Your task to perform on an android device: clear history in the chrome app Image 0: 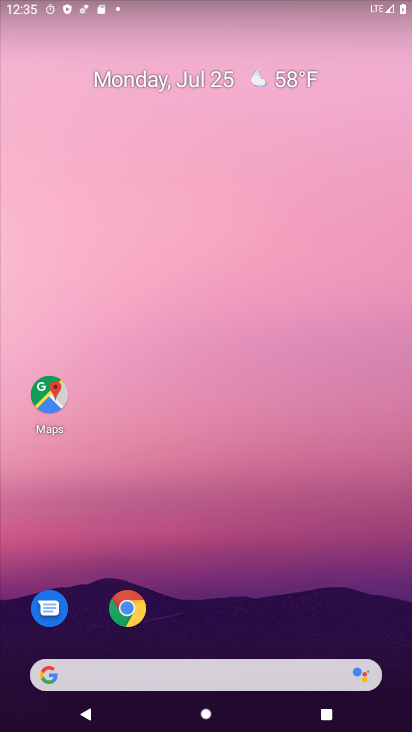
Step 0: drag from (249, 586) to (255, 46)
Your task to perform on an android device: clear history in the chrome app Image 1: 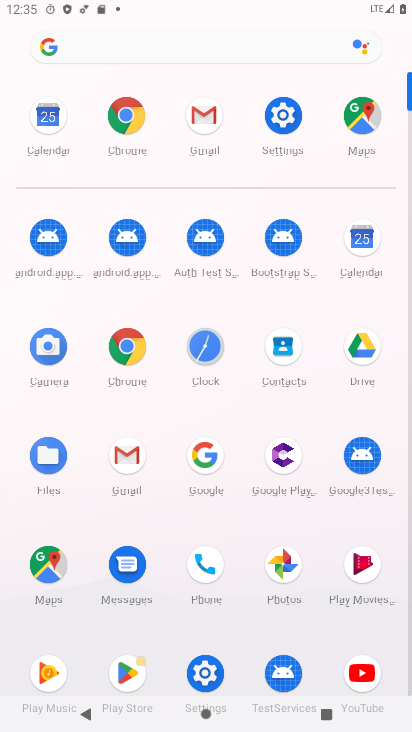
Step 1: click (132, 345)
Your task to perform on an android device: clear history in the chrome app Image 2: 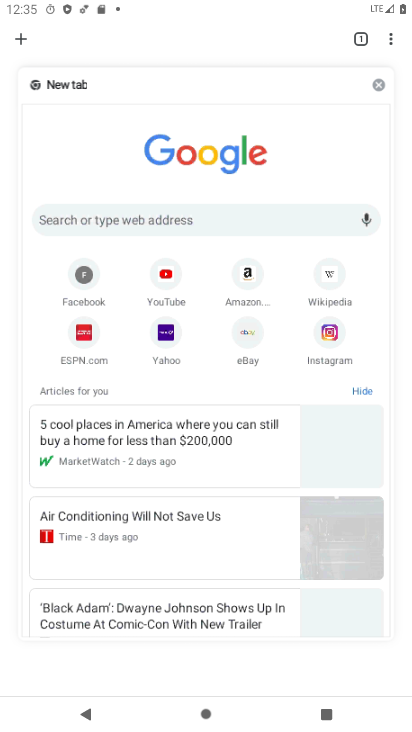
Step 2: drag from (388, 29) to (71, 135)
Your task to perform on an android device: clear history in the chrome app Image 3: 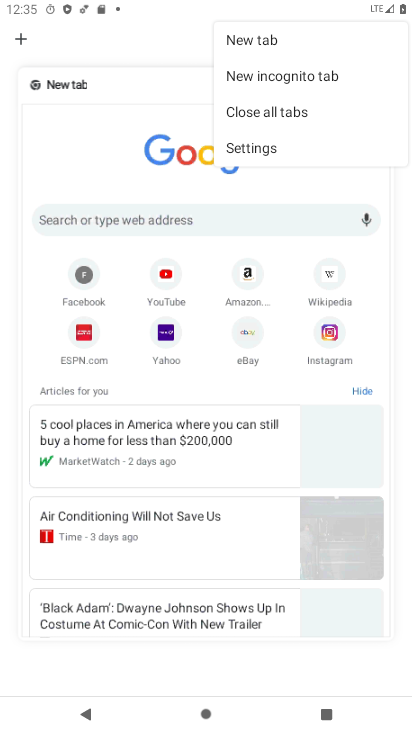
Step 3: click (75, 129)
Your task to perform on an android device: clear history in the chrome app Image 4: 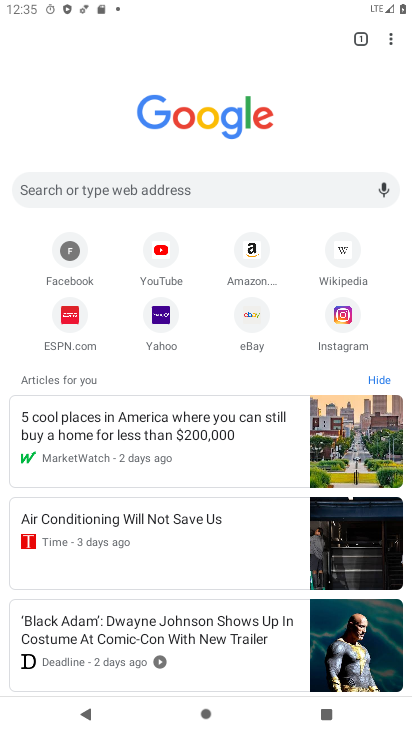
Step 4: drag from (389, 39) to (253, 224)
Your task to perform on an android device: clear history in the chrome app Image 5: 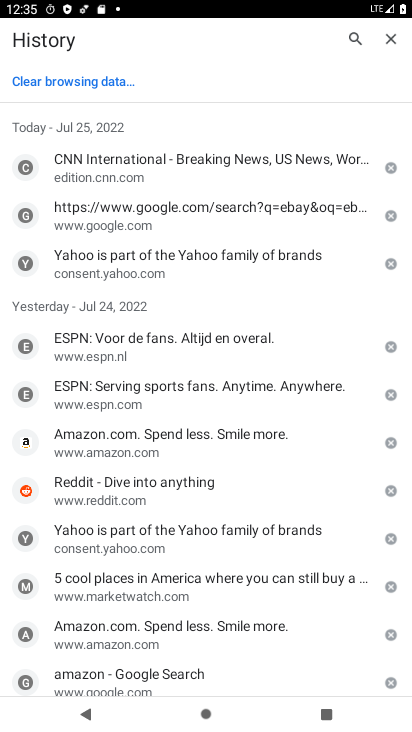
Step 5: click (95, 80)
Your task to perform on an android device: clear history in the chrome app Image 6: 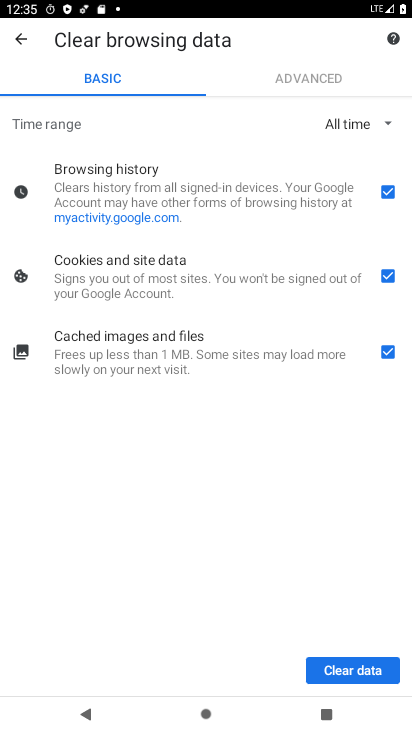
Step 6: click (376, 662)
Your task to perform on an android device: clear history in the chrome app Image 7: 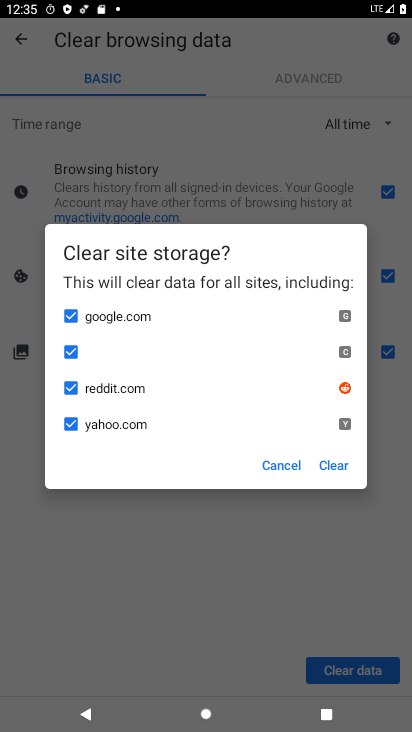
Step 7: click (349, 462)
Your task to perform on an android device: clear history in the chrome app Image 8: 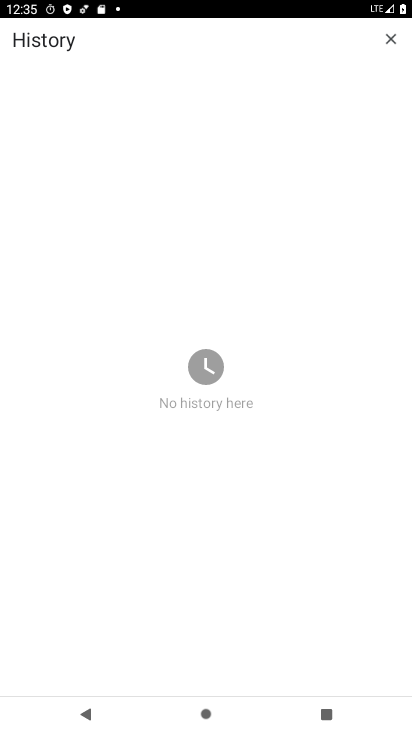
Step 8: task complete